Your task to perform on an android device: Open wifi settings Image 0: 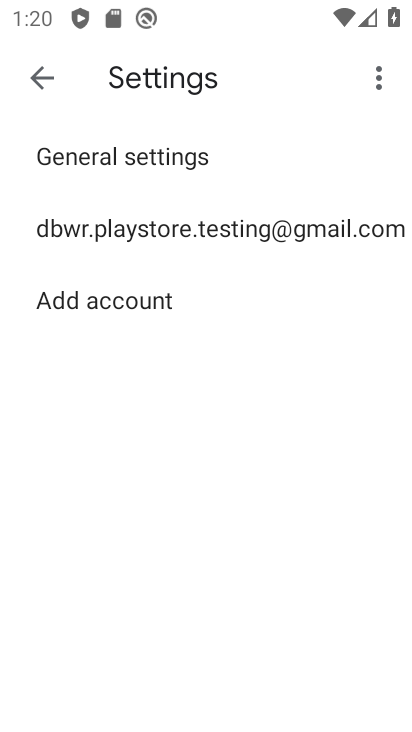
Step 0: press home button
Your task to perform on an android device: Open wifi settings Image 1: 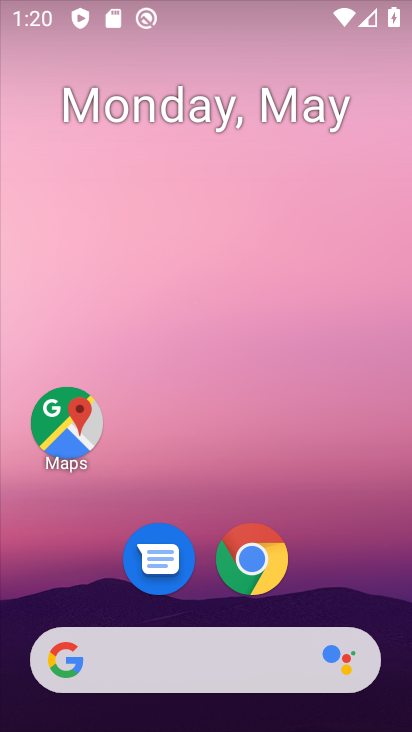
Step 1: drag from (265, 516) to (210, 65)
Your task to perform on an android device: Open wifi settings Image 2: 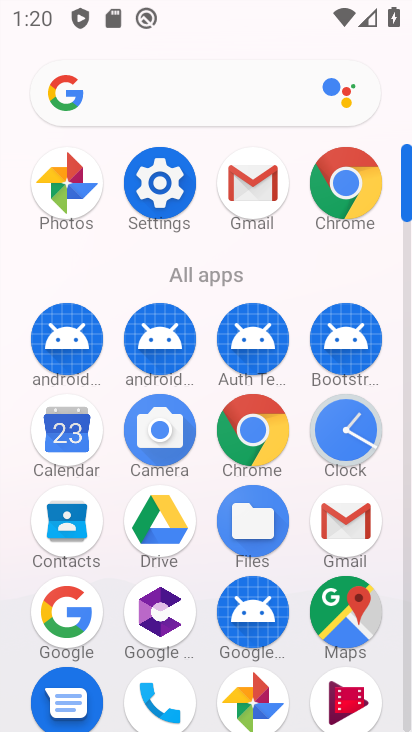
Step 2: click (166, 187)
Your task to perform on an android device: Open wifi settings Image 3: 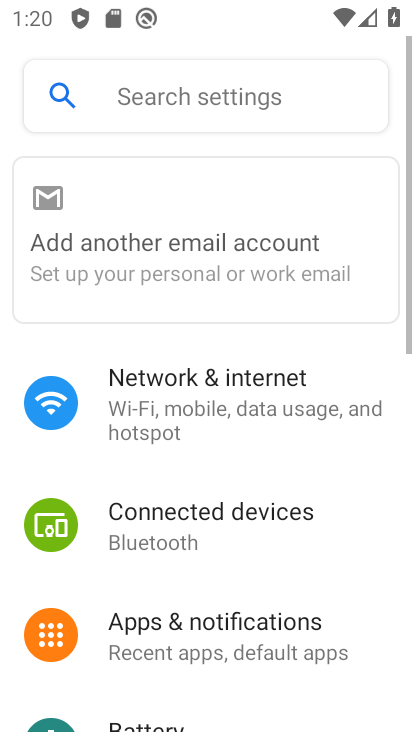
Step 3: click (185, 217)
Your task to perform on an android device: Open wifi settings Image 4: 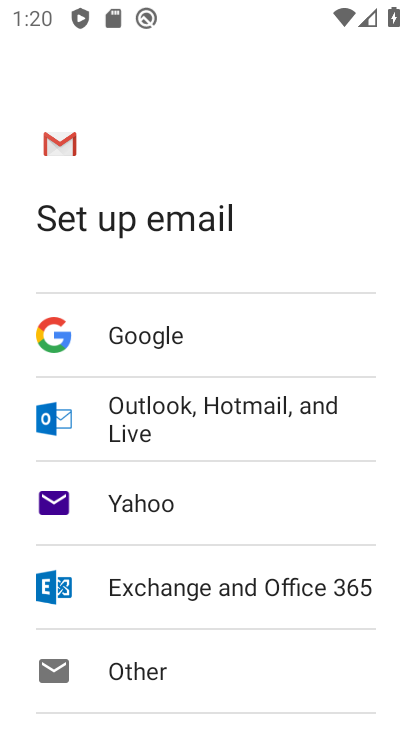
Step 4: press back button
Your task to perform on an android device: Open wifi settings Image 5: 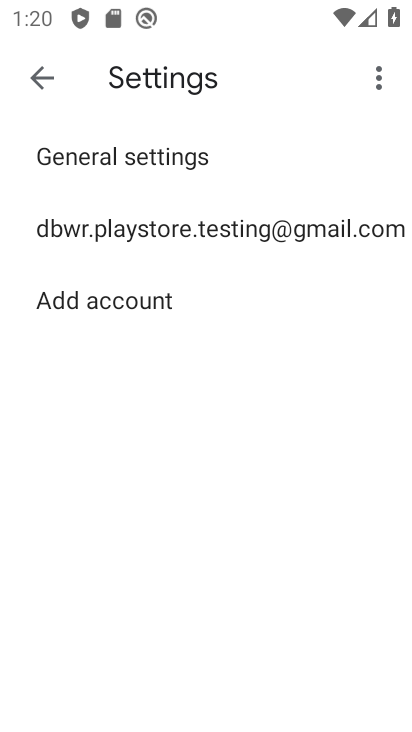
Step 5: press back button
Your task to perform on an android device: Open wifi settings Image 6: 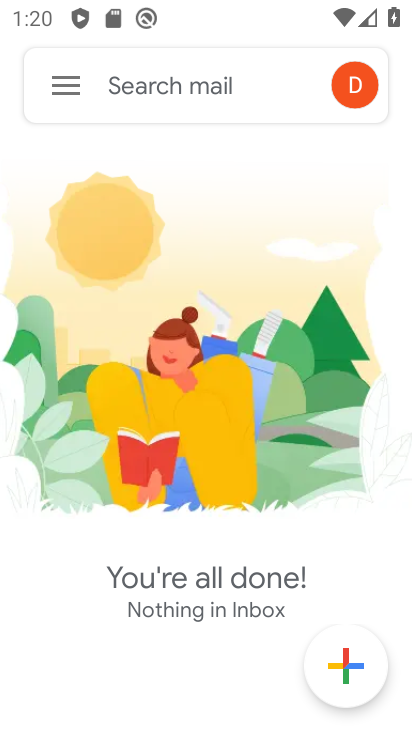
Step 6: press back button
Your task to perform on an android device: Open wifi settings Image 7: 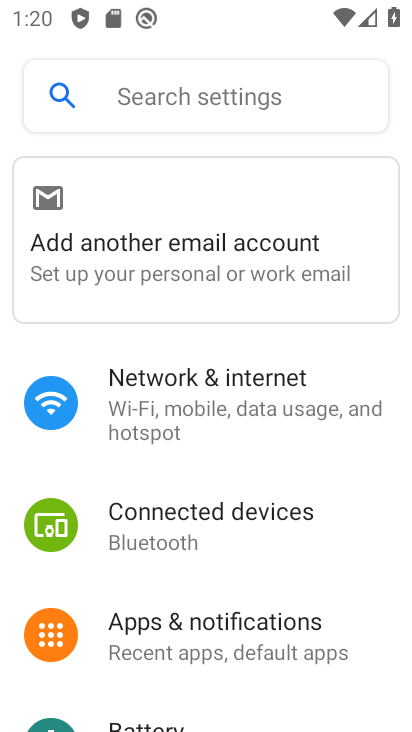
Step 7: click (168, 435)
Your task to perform on an android device: Open wifi settings Image 8: 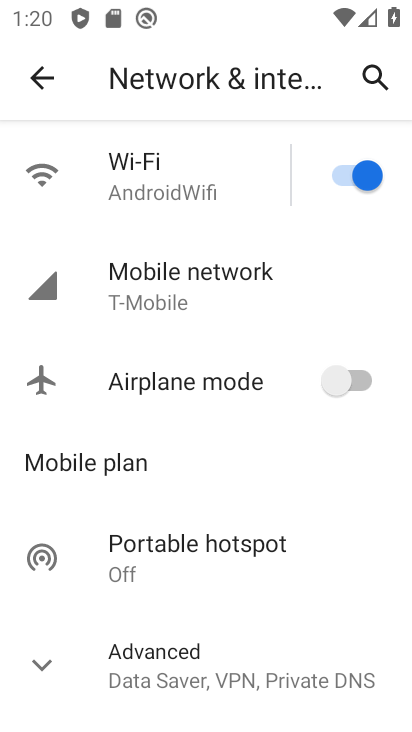
Step 8: click (187, 172)
Your task to perform on an android device: Open wifi settings Image 9: 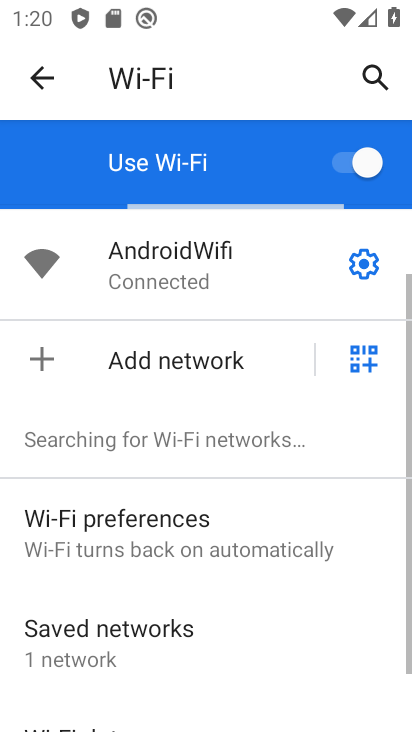
Step 9: click (368, 262)
Your task to perform on an android device: Open wifi settings Image 10: 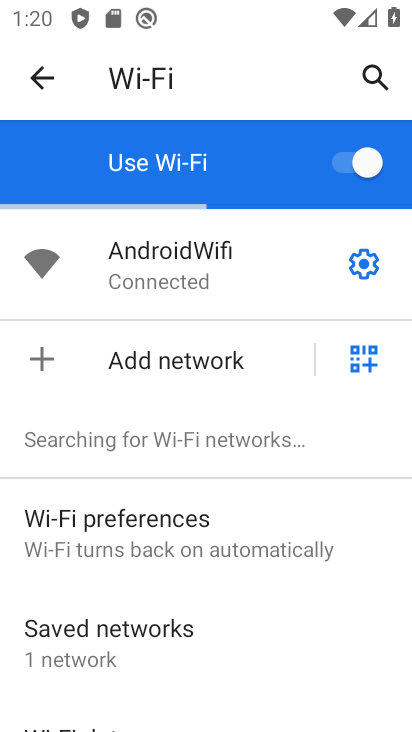
Step 10: click (360, 261)
Your task to perform on an android device: Open wifi settings Image 11: 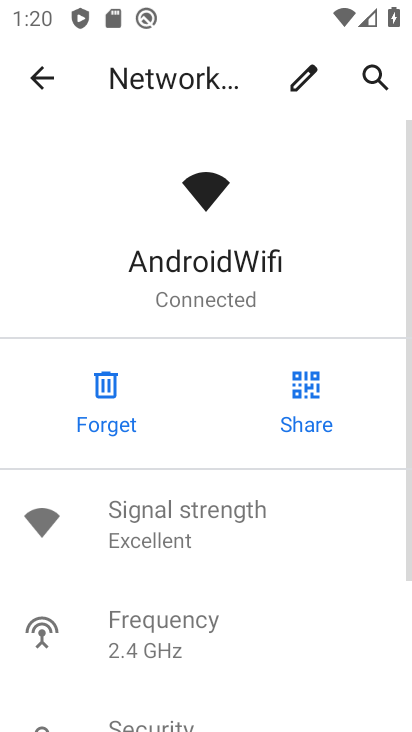
Step 11: task complete